Your task to perform on an android device: Open calendar and show me the fourth week of next month Image 0: 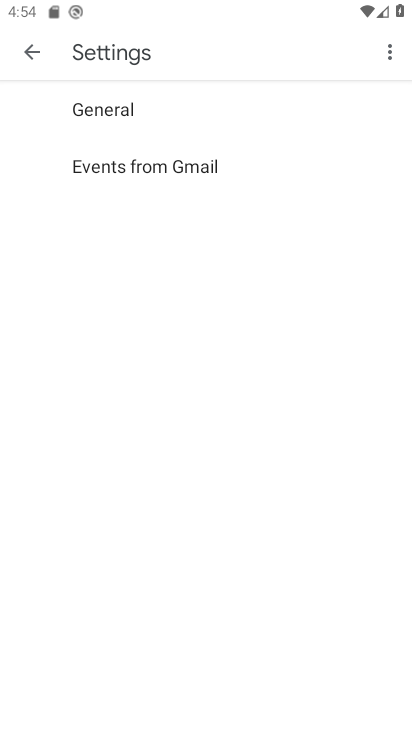
Step 0: press home button
Your task to perform on an android device: Open calendar and show me the fourth week of next month Image 1: 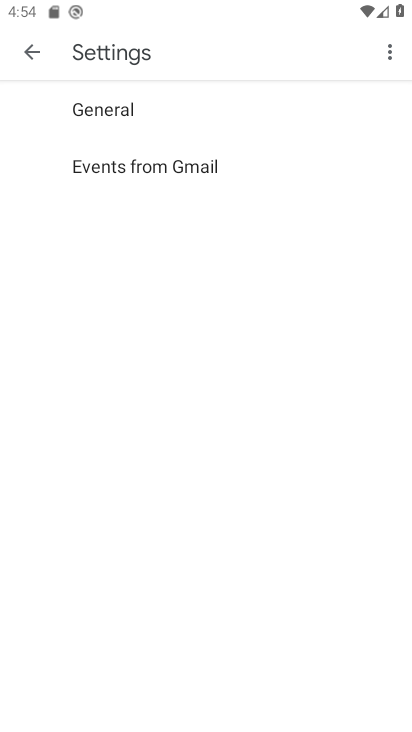
Step 1: press home button
Your task to perform on an android device: Open calendar and show me the fourth week of next month Image 2: 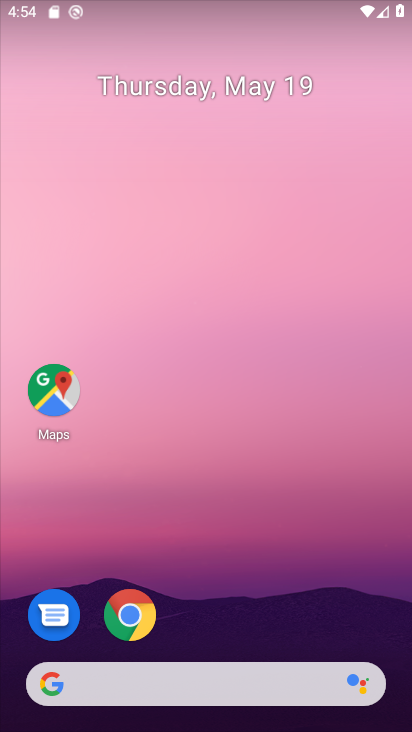
Step 2: drag from (251, 643) to (251, 14)
Your task to perform on an android device: Open calendar and show me the fourth week of next month Image 3: 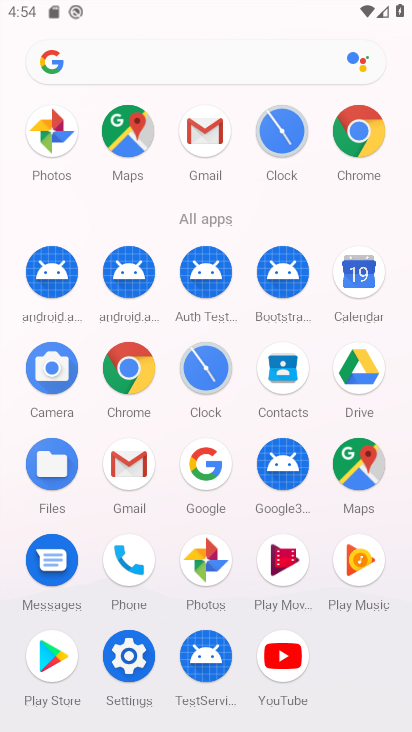
Step 3: click (362, 275)
Your task to perform on an android device: Open calendar and show me the fourth week of next month Image 4: 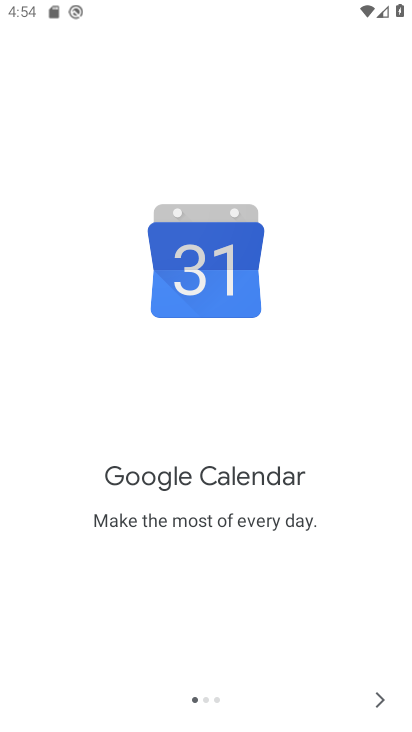
Step 4: click (374, 693)
Your task to perform on an android device: Open calendar and show me the fourth week of next month Image 5: 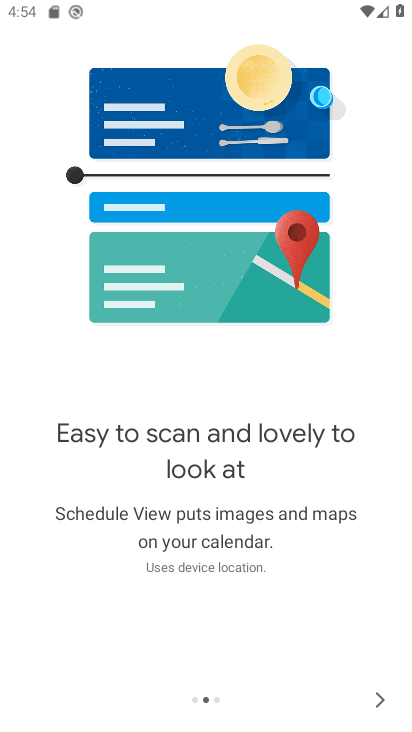
Step 5: click (374, 693)
Your task to perform on an android device: Open calendar and show me the fourth week of next month Image 6: 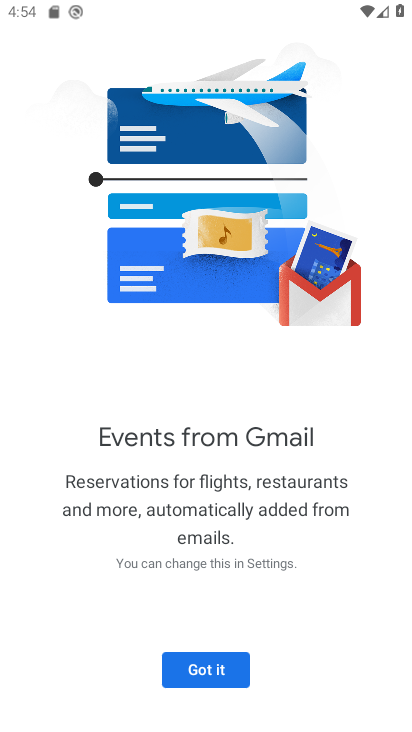
Step 6: click (211, 673)
Your task to perform on an android device: Open calendar and show me the fourth week of next month Image 7: 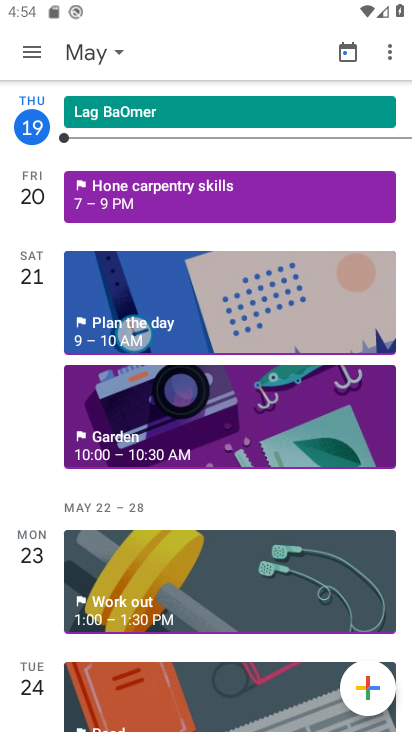
Step 7: click (118, 50)
Your task to perform on an android device: Open calendar and show me the fourth week of next month Image 8: 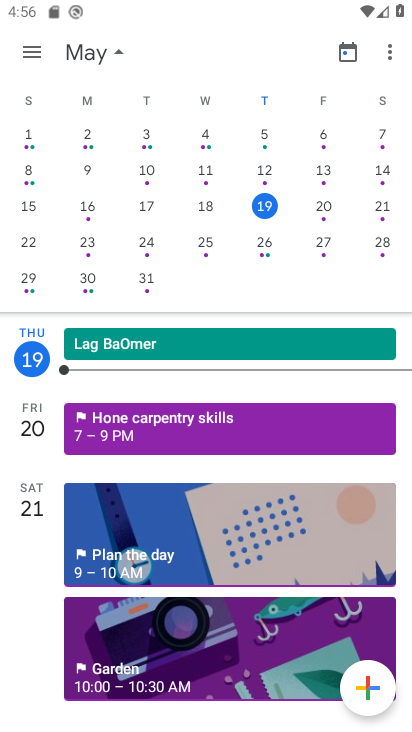
Step 8: drag from (344, 210) to (28, 272)
Your task to perform on an android device: Open calendar and show me the fourth week of next month Image 9: 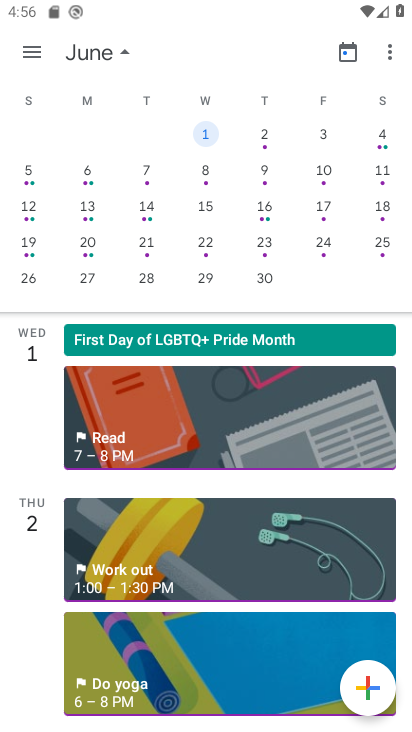
Step 9: click (259, 243)
Your task to perform on an android device: Open calendar and show me the fourth week of next month Image 10: 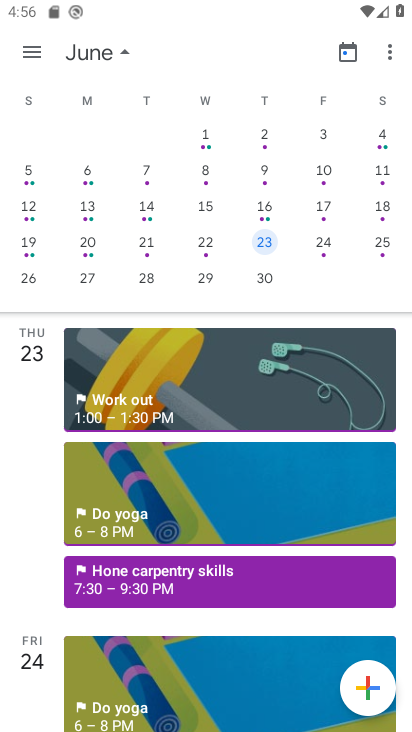
Step 10: task complete